Your task to perform on an android device: empty trash in the gmail app Image 0: 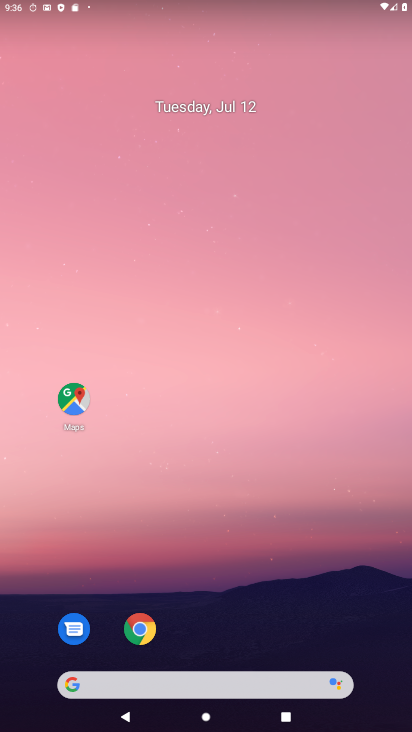
Step 0: drag from (364, 730) to (114, 23)
Your task to perform on an android device: empty trash in the gmail app Image 1: 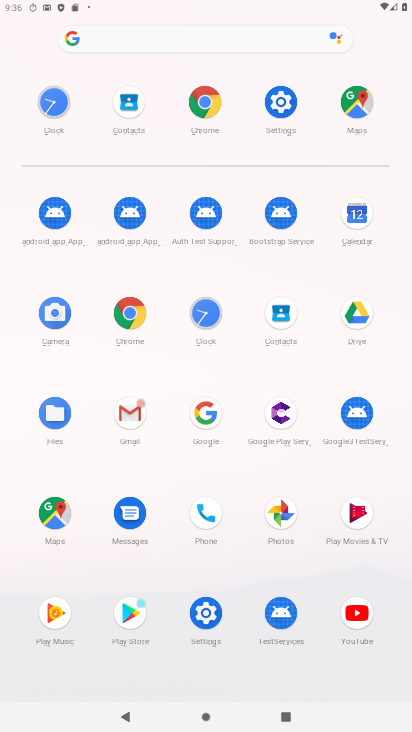
Step 1: click (115, 423)
Your task to perform on an android device: empty trash in the gmail app Image 2: 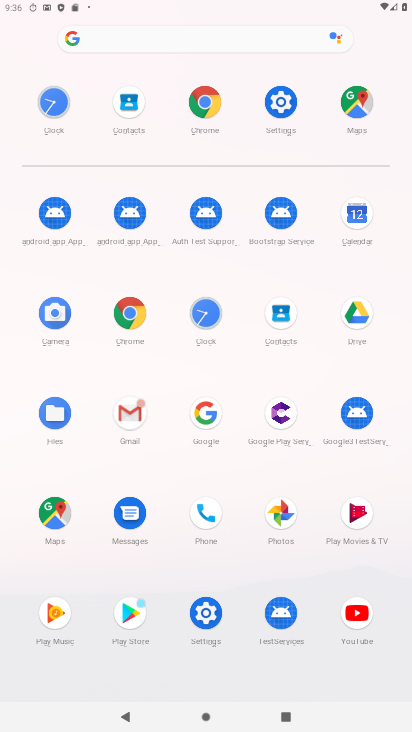
Step 2: click (122, 415)
Your task to perform on an android device: empty trash in the gmail app Image 3: 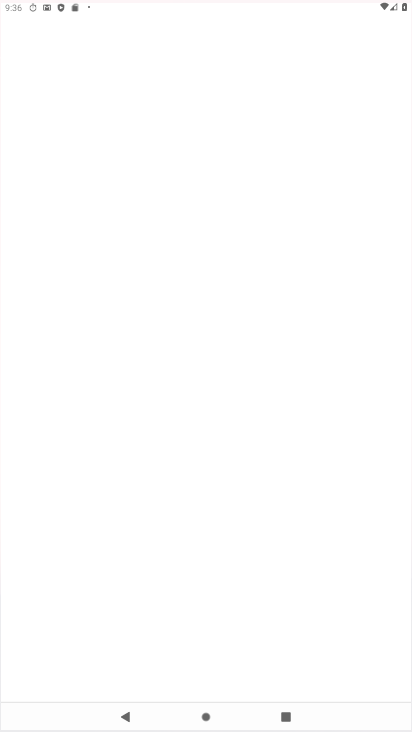
Step 3: click (128, 410)
Your task to perform on an android device: empty trash in the gmail app Image 4: 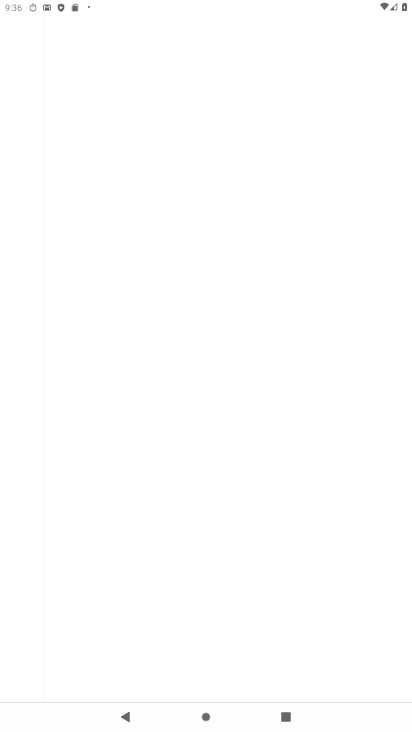
Step 4: click (128, 410)
Your task to perform on an android device: empty trash in the gmail app Image 5: 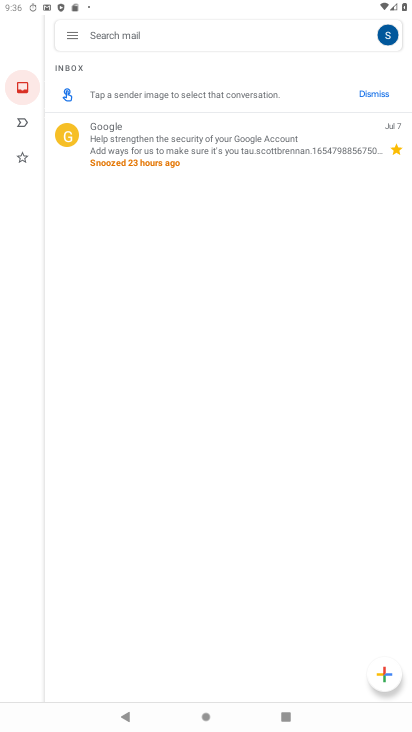
Step 5: click (75, 33)
Your task to perform on an android device: empty trash in the gmail app Image 6: 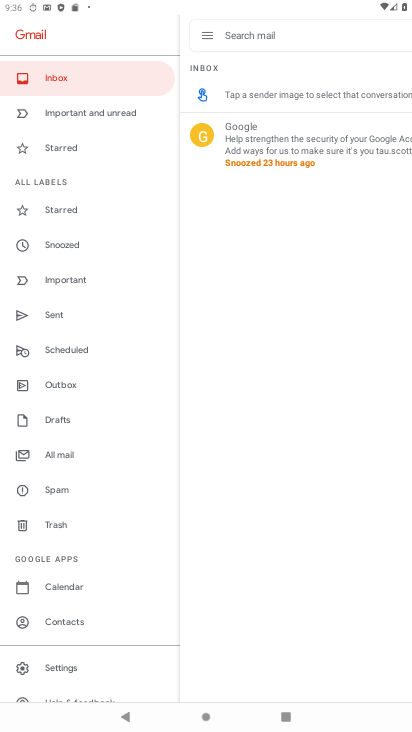
Step 6: click (56, 517)
Your task to perform on an android device: empty trash in the gmail app Image 7: 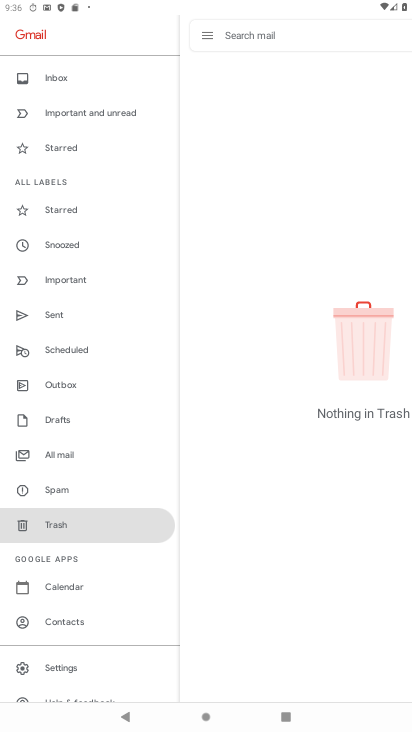
Step 7: task complete